Your task to perform on an android device: Do I have any events this weekend? Image 0: 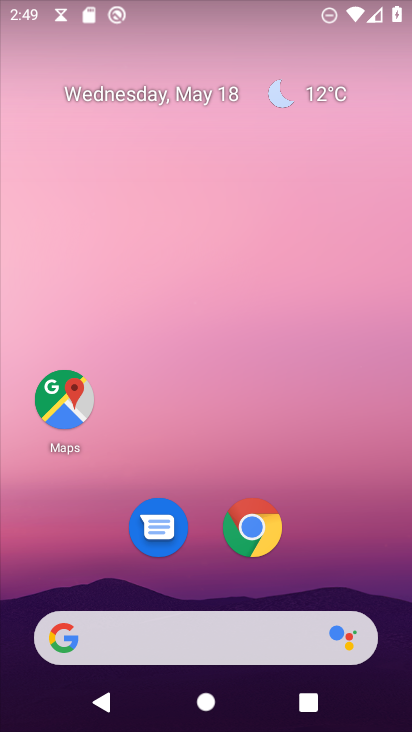
Step 0: click (184, 89)
Your task to perform on an android device: Do I have any events this weekend? Image 1: 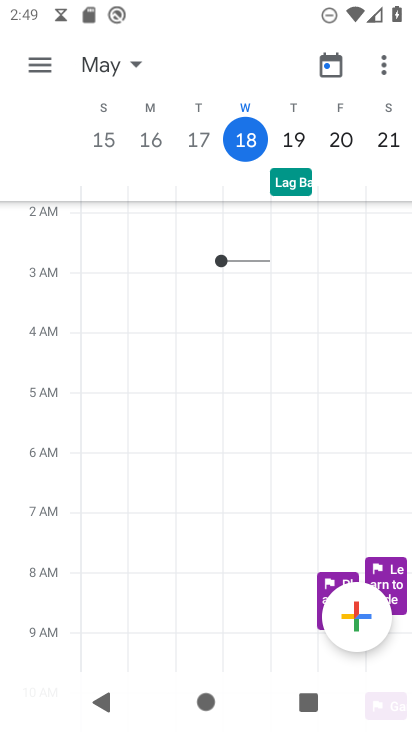
Step 1: task complete